Your task to perform on an android device: uninstall "Chime – Mobile Banking" Image 0: 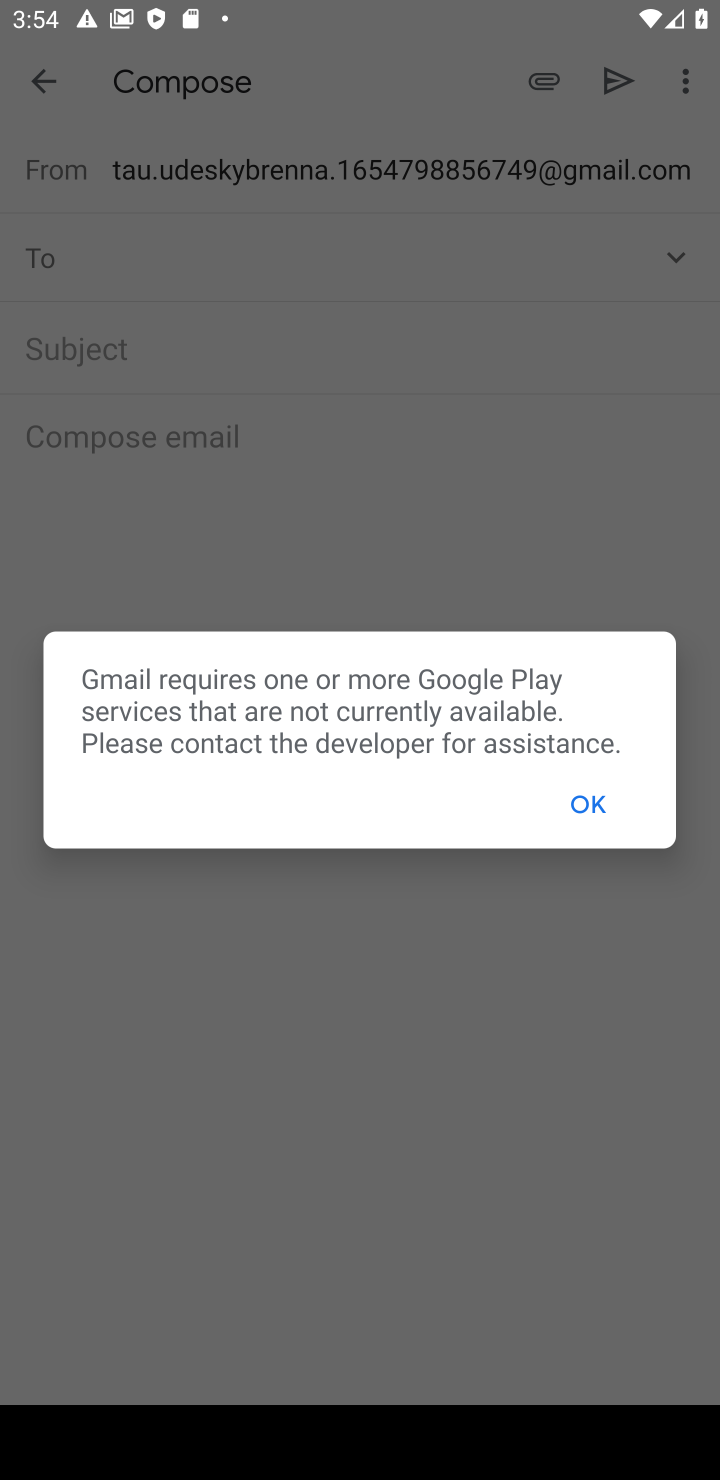
Step 0: press home button
Your task to perform on an android device: uninstall "Chime – Mobile Banking" Image 1: 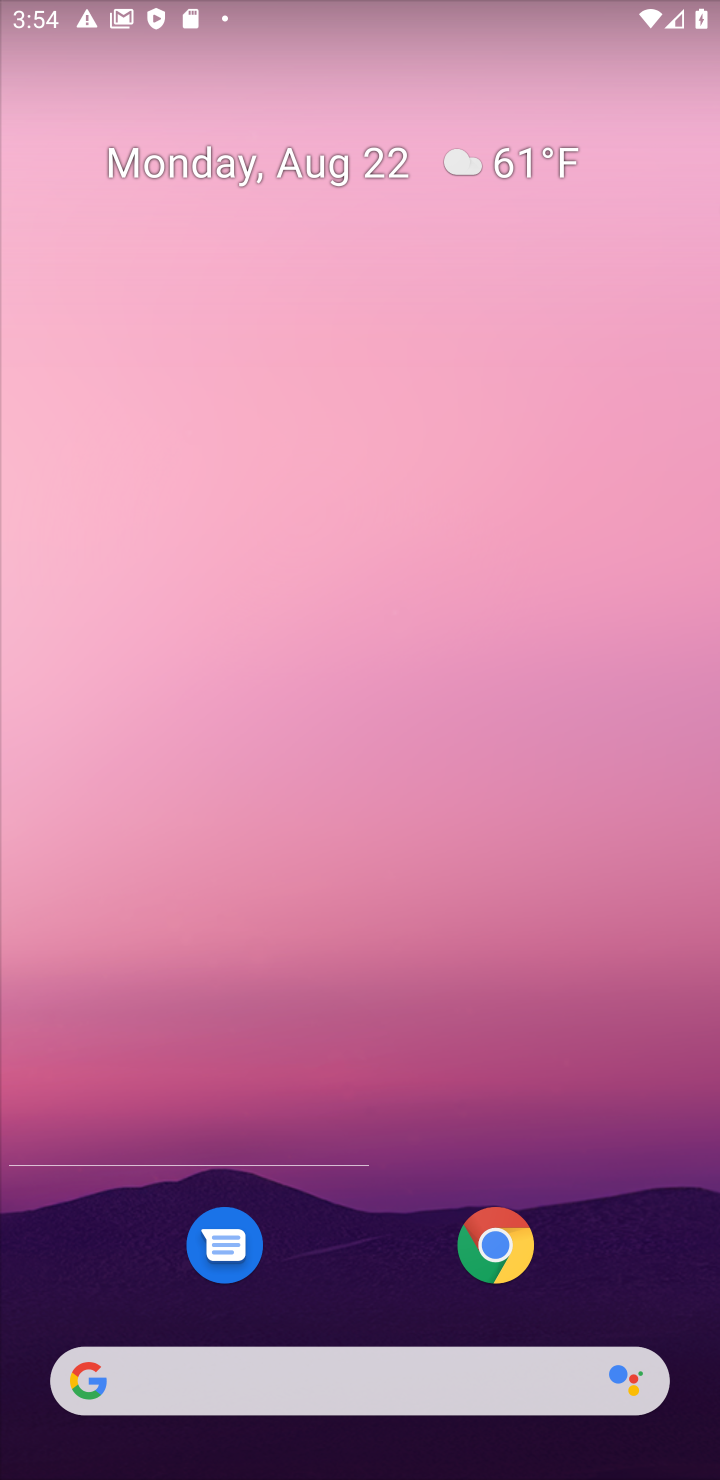
Step 1: press home button
Your task to perform on an android device: uninstall "Chime – Mobile Banking" Image 2: 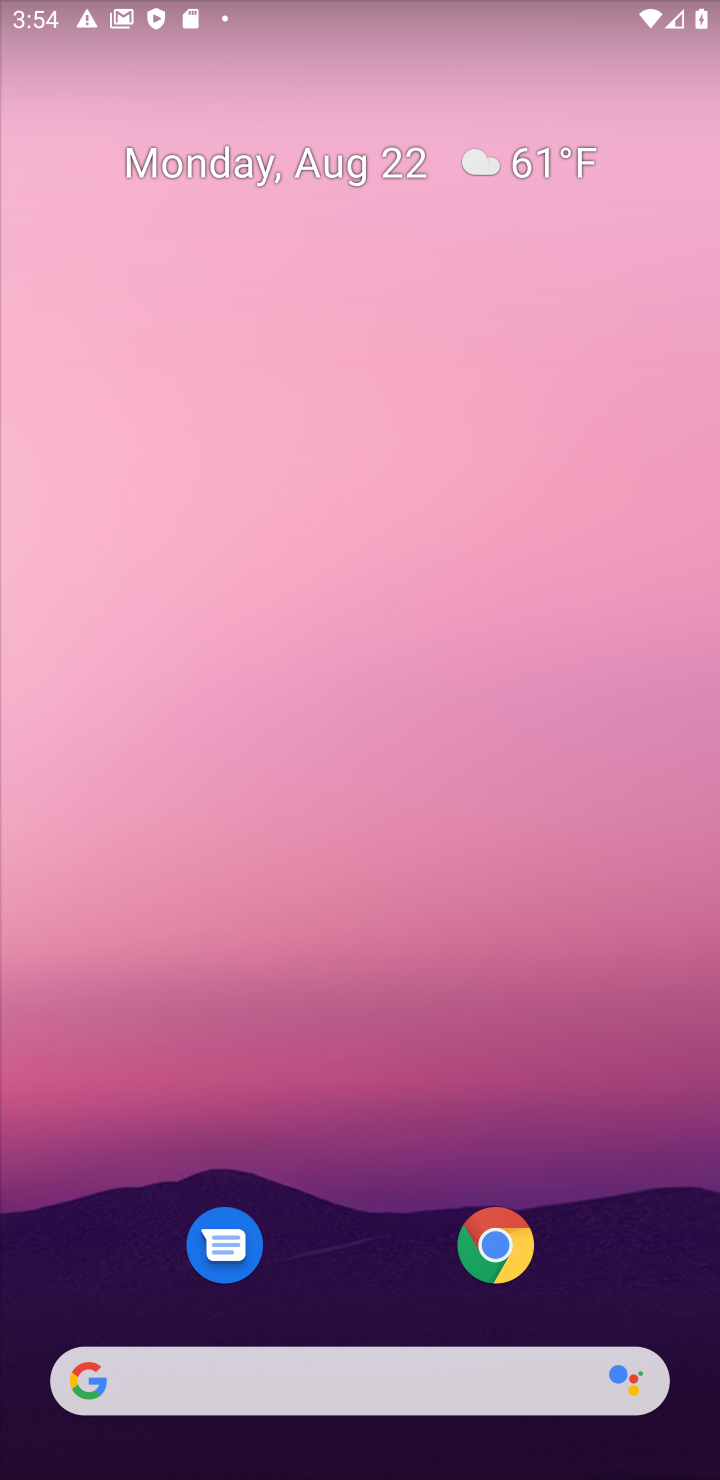
Step 2: drag from (604, 1030) to (626, 102)
Your task to perform on an android device: uninstall "Chime – Mobile Banking" Image 3: 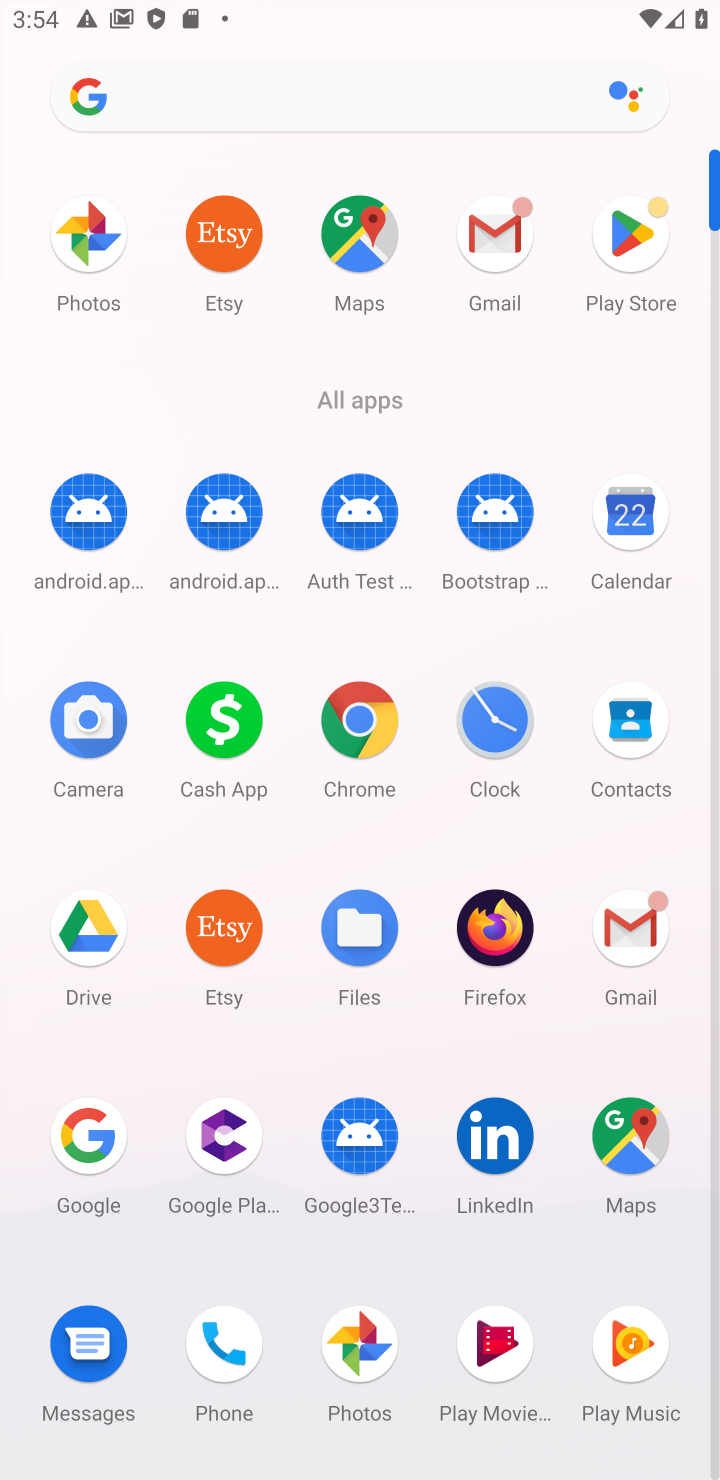
Step 3: click (618, 241)
Your task to perform on an android device: uninstall "Chime – Mobile Banking" Image 4: 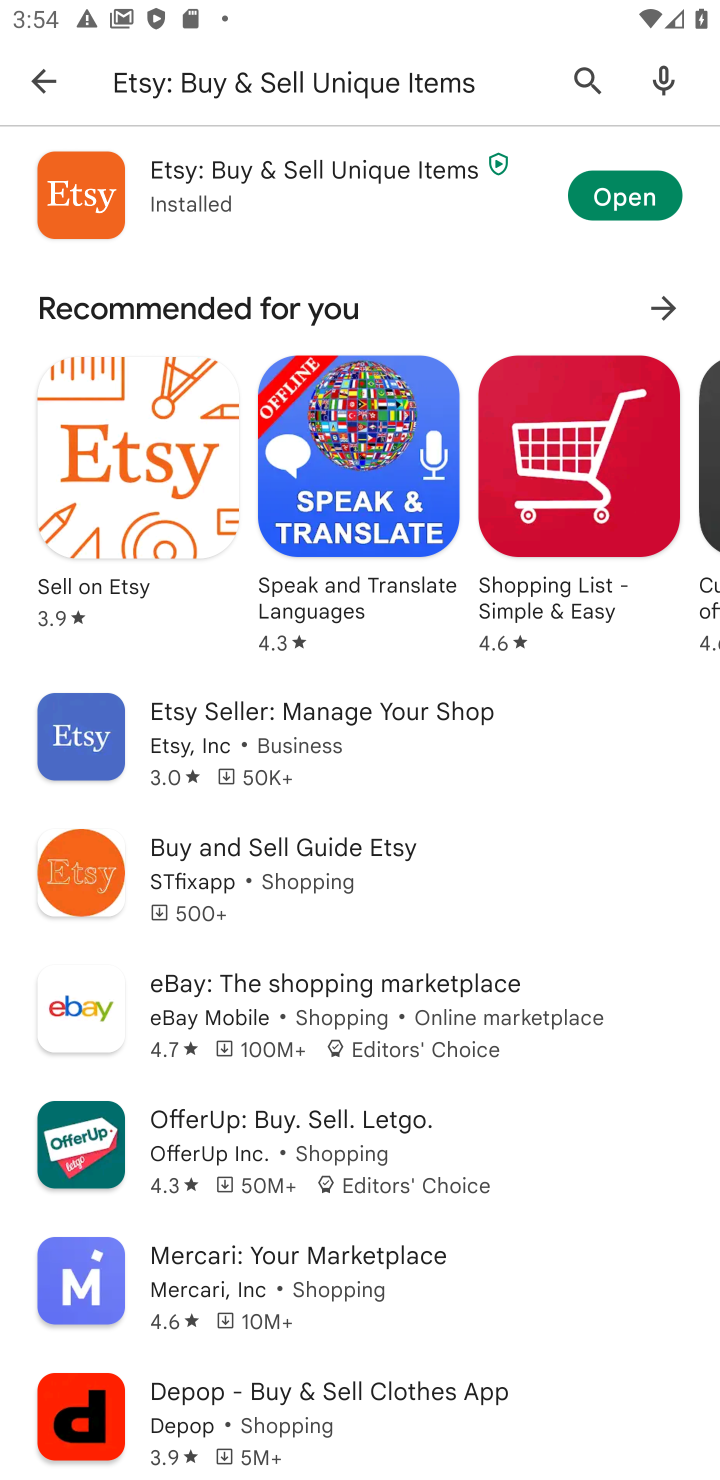
Step 4: press back button
Your task to perform on an android device: uninstall "Chime – Mobile Banking" Image 5: 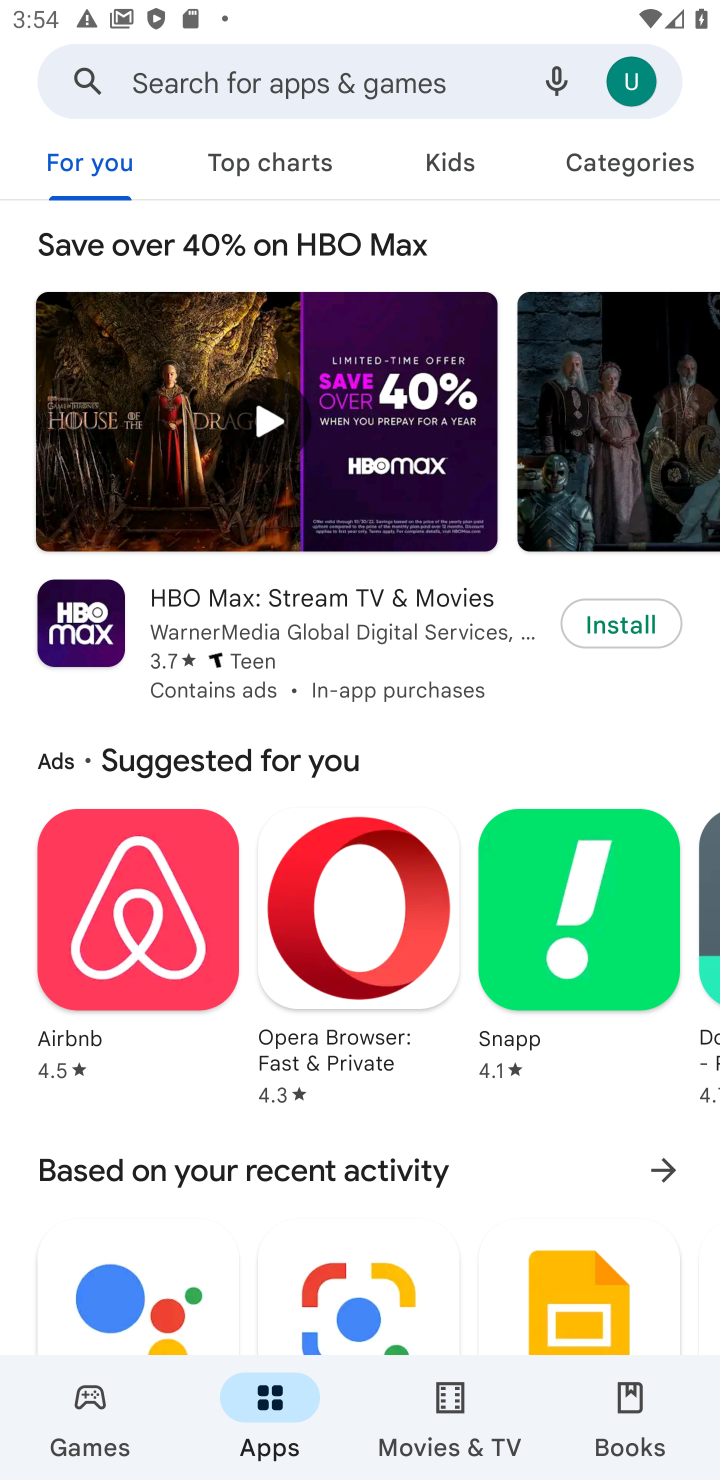
Step 5: click (452, 75)
Your task to perform on an android device: uninstall "Chime – Mobile Banking" Image 6: 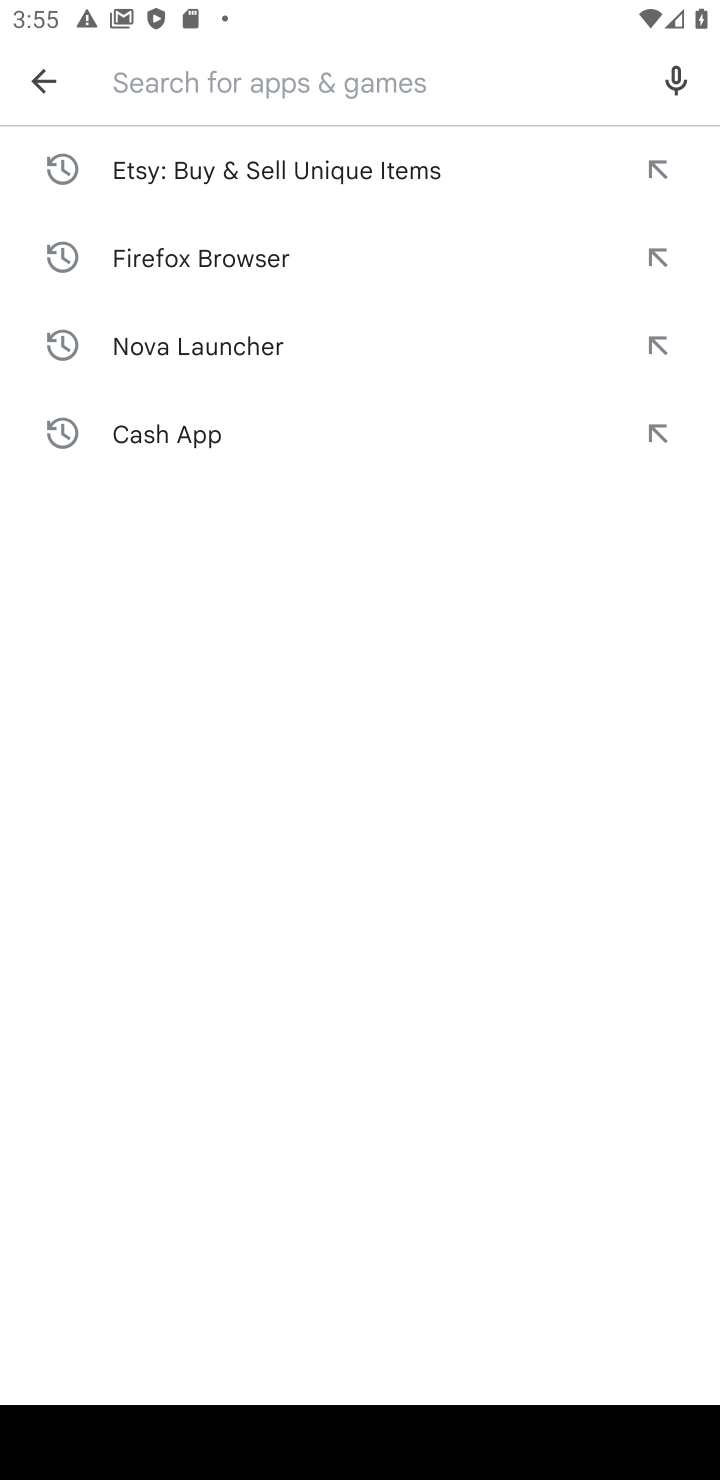
Step 6: type "Chime – Mobile Banking"
Your task to perform on an android device: uninstall "Chime – Mobile Banking" Image 7: 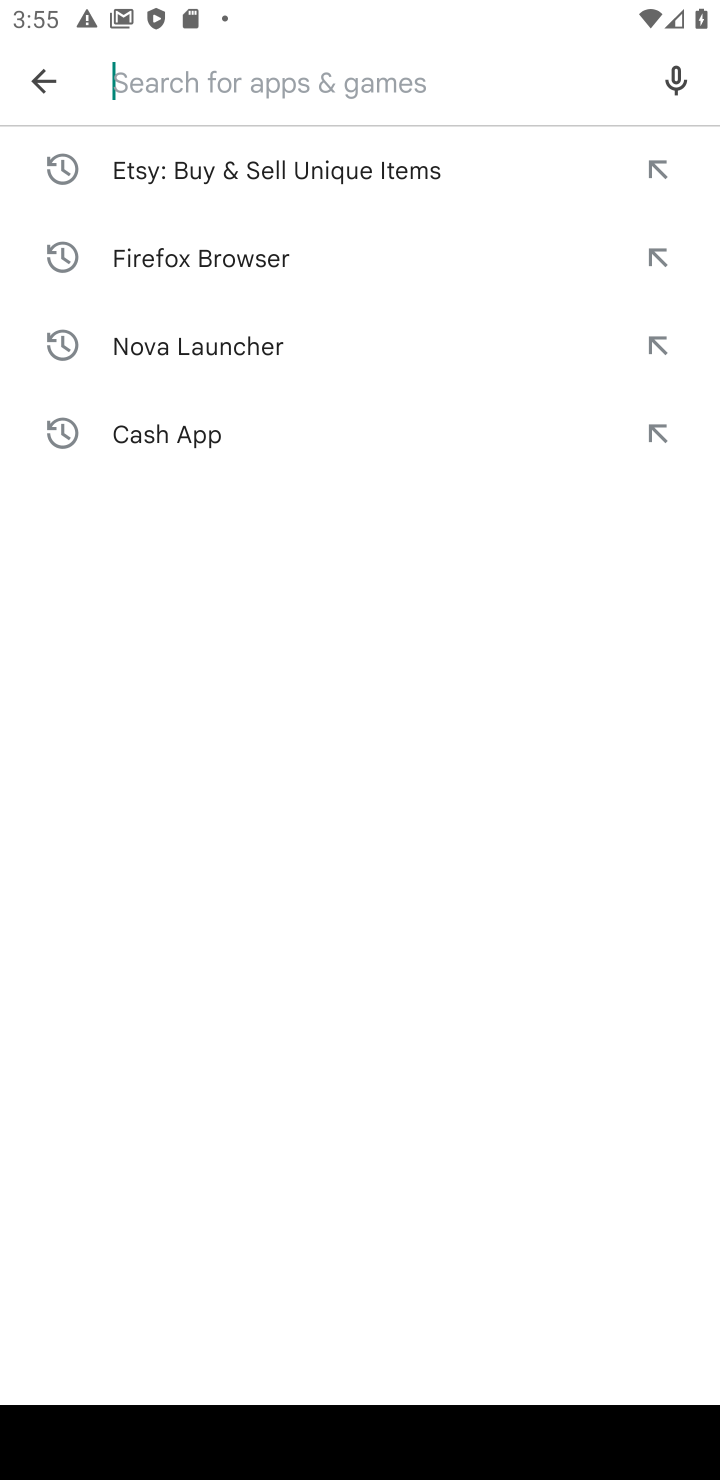
Step 7: press enter
Your task to perform on an android device: uninstall "Chime – Mobile Banking" Image 8: 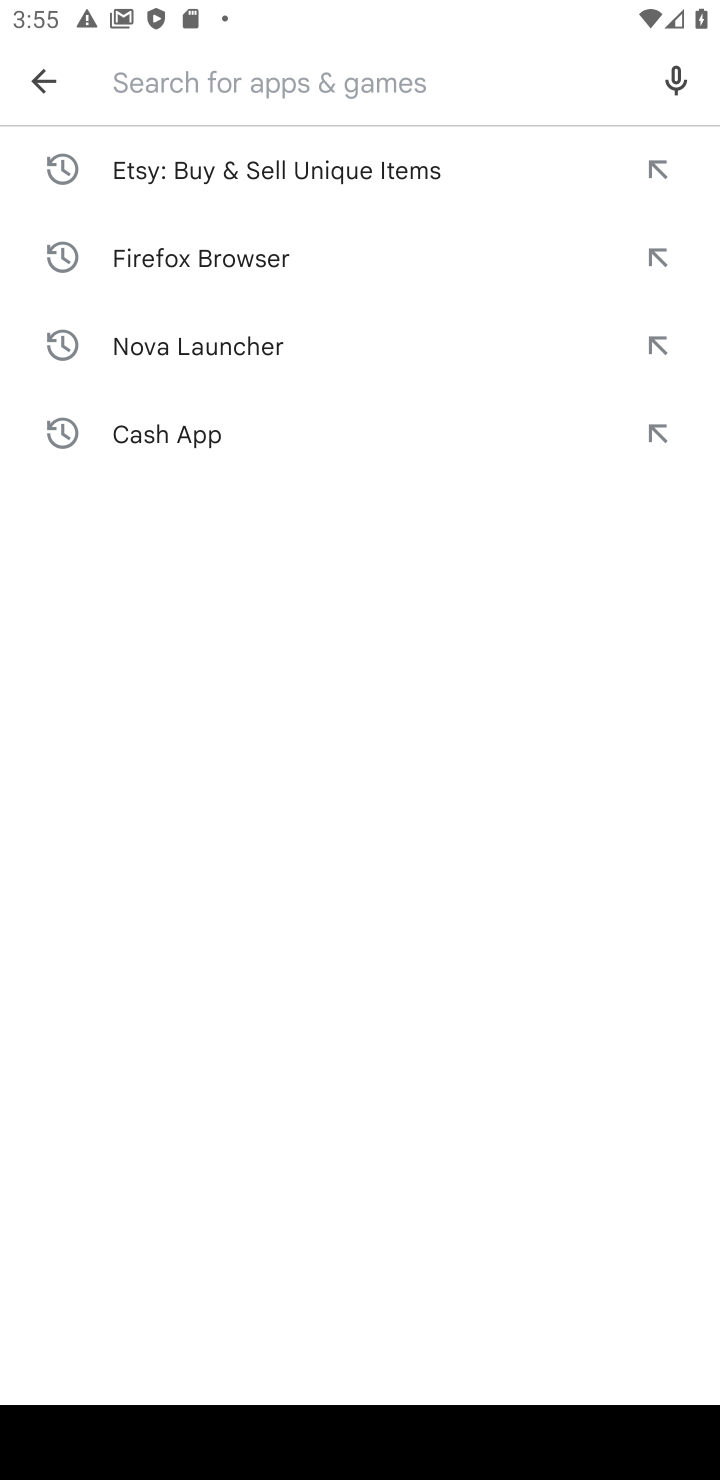
Step 8: task complete